Your task to perform on an android device: Open Chrome and go to settings Image 0: 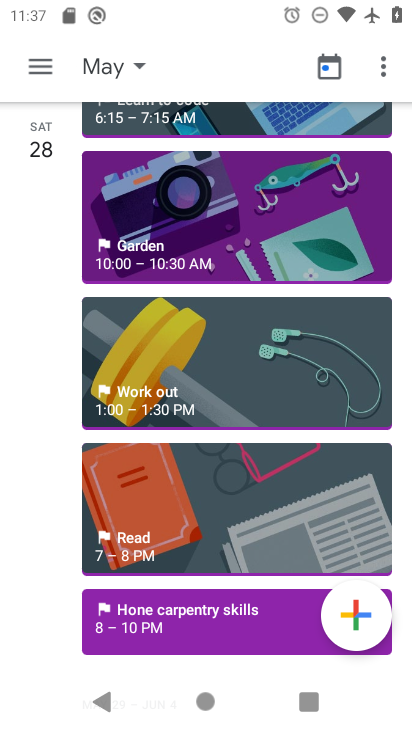
Step 0: press home button
Your task to perform on an android device: Open Chrome and go to settings Image 1: 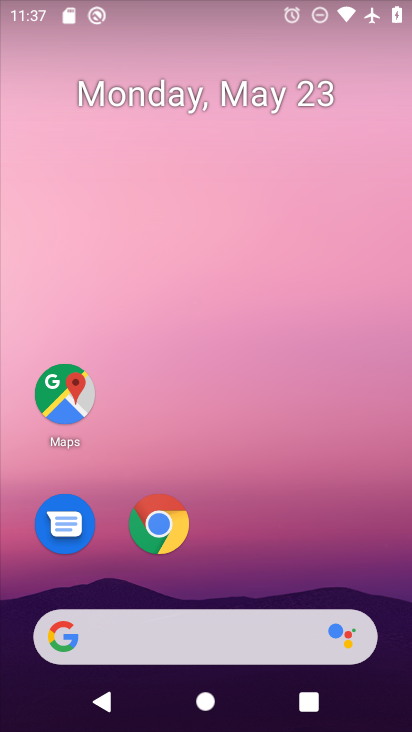
Step 1: click (150, 528)
Your task to perform on an android device: Open Chrome and go to settings Image 2: 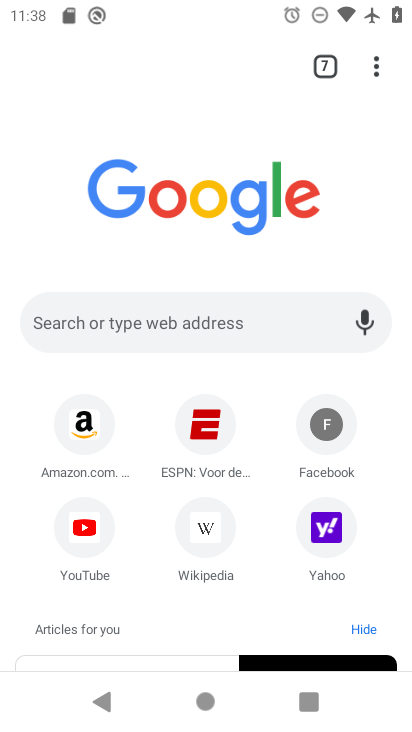
Step 2: click (372, 75)
Your task to perform on an android device: Open Chrome and go to settings Image 3: 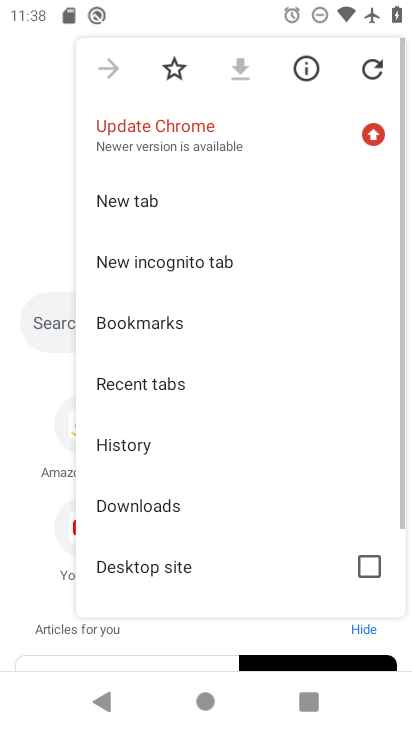
Step 3: drag from (197, 541) to (204, 257)
Your task to perform on an android device: Open Chrome and go to settings Image 4: 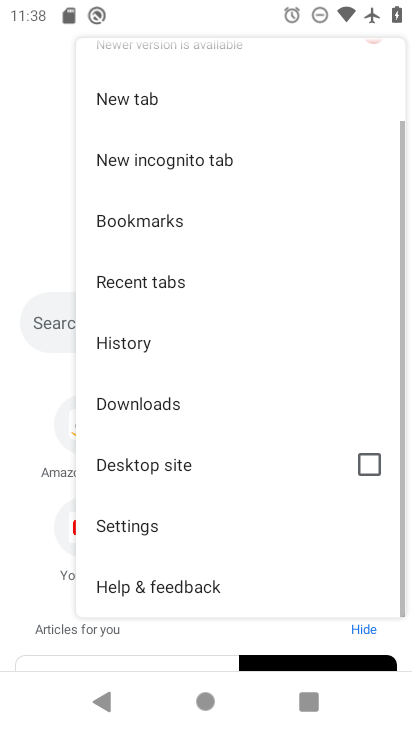
Step 4: click (174, 527)
Your task to perform on an android device: Open Chrome and go to settings Image 5: 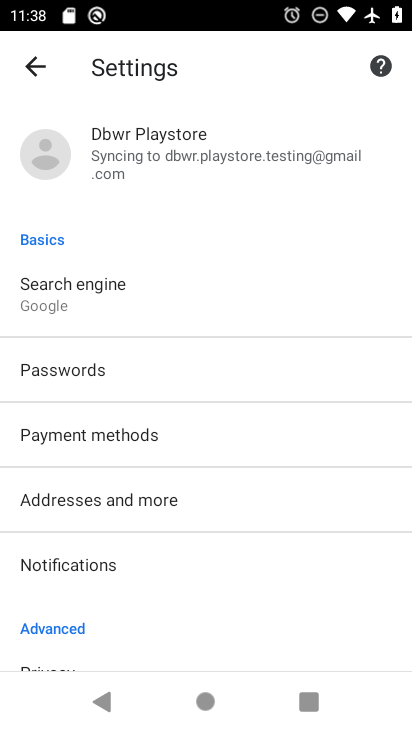
Step 5: task complete